Your task to perform on an android device: Open Chrome and go to settings Image 0: 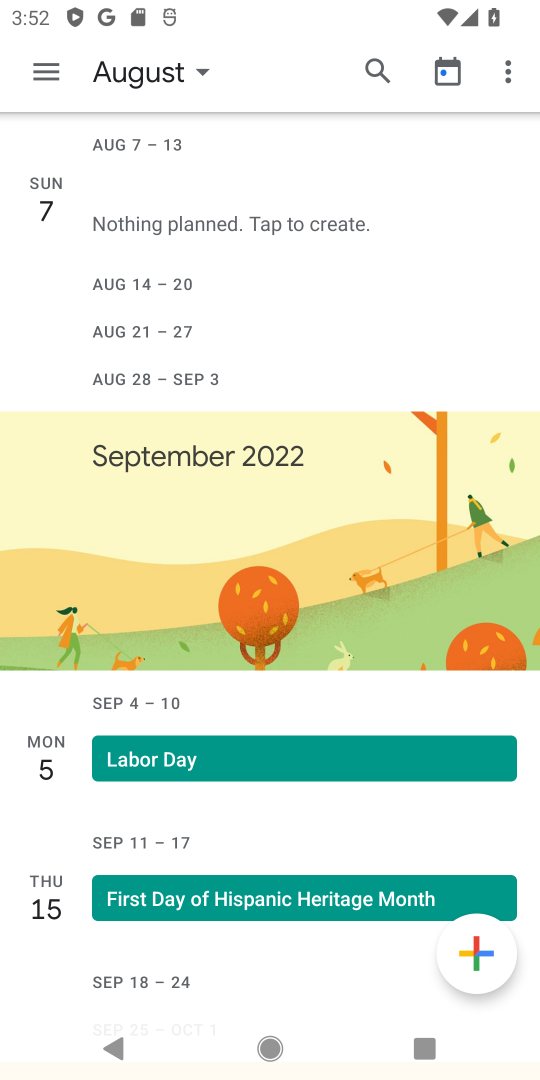
Step 0: press home button
Your task to perform on an android device: Open Chrome and go to settings Image 1: 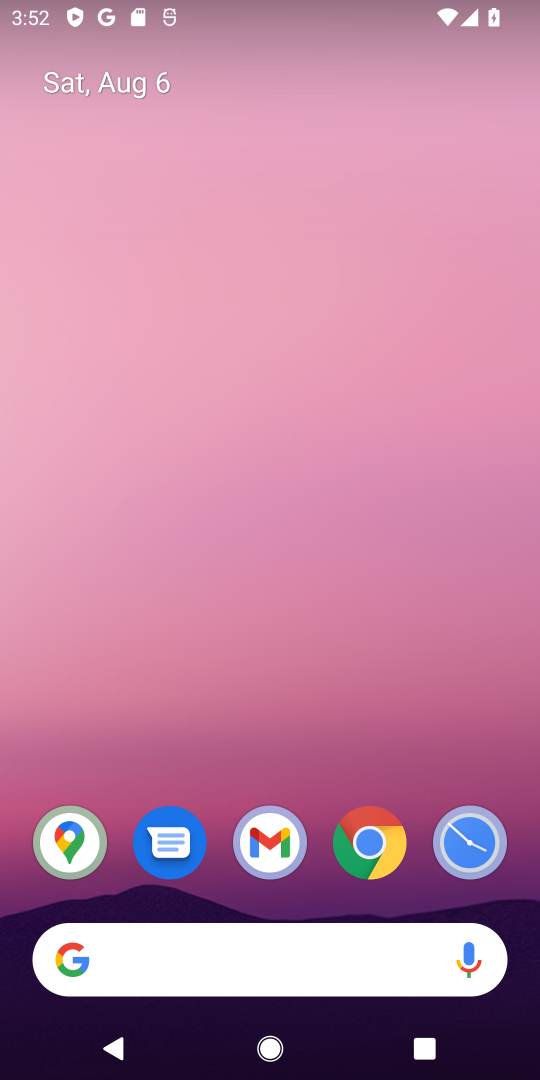
Step 1: click (370, 834)
Your task to perform on an android device: Open Chrome and go to settings Image 2: 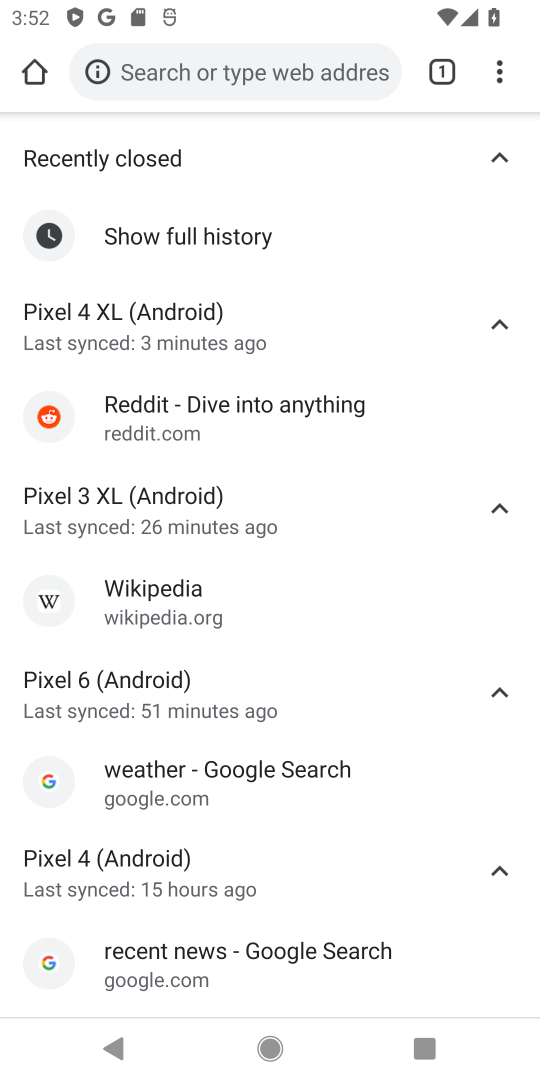
Step 2: press home button
Your task to perform on an android device: Open Chrome and go to settings Image 3: 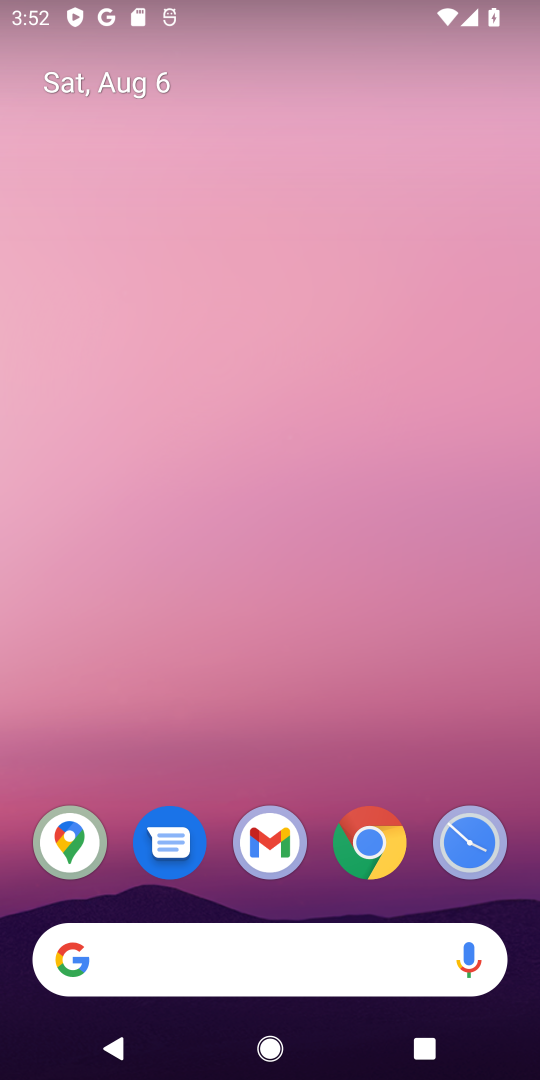
Step 3: click (381, 840)
Your task to perform on an android device: Open Chrome and go to settings Image 4: 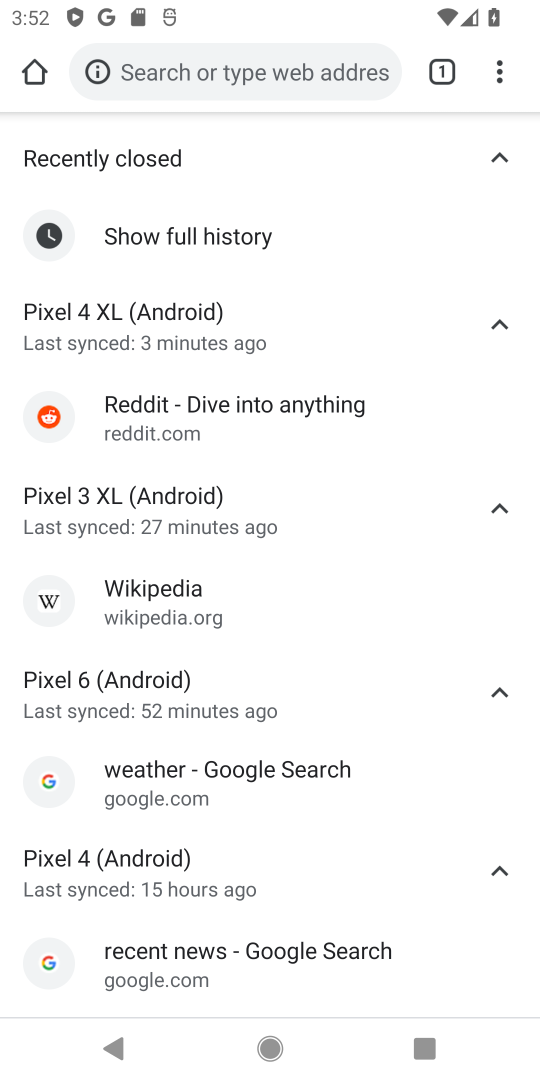
Step 4: click (505, 66)
Your task to perform on an android device: Open Chrome and go to settings Image 5: 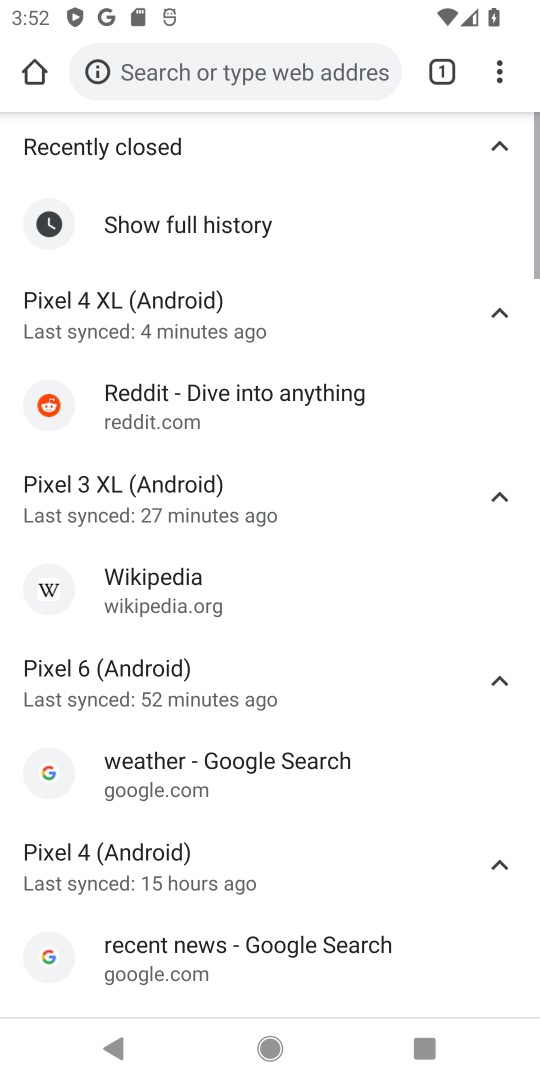
Step 5: click (501, 77)
Your task to perform on an android device: Open Chrome and go to settings Image 6: 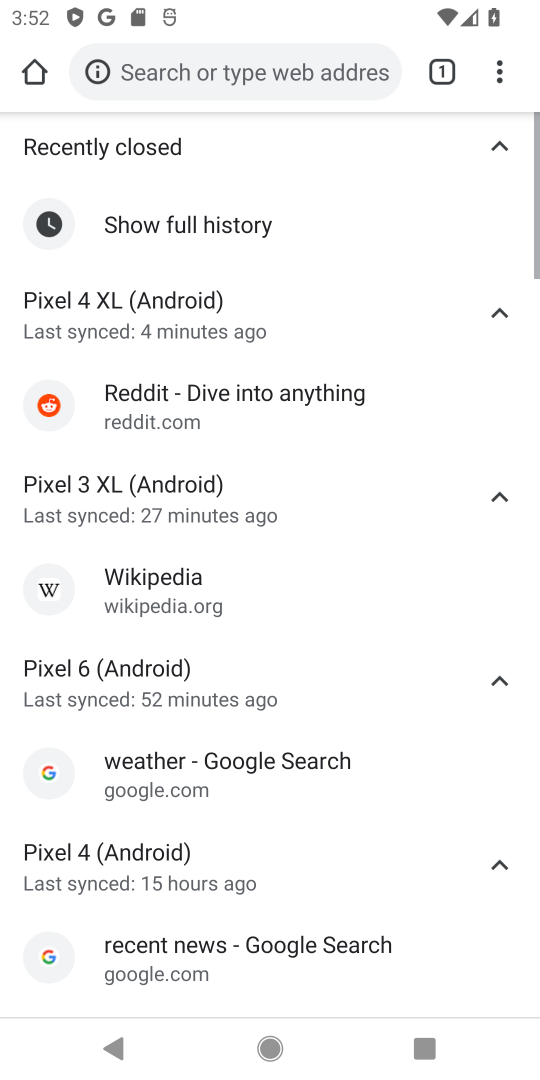
Step 6: click (498, 72)
Your task to perform on an android device: Open Chrome and go to settings Image 7: 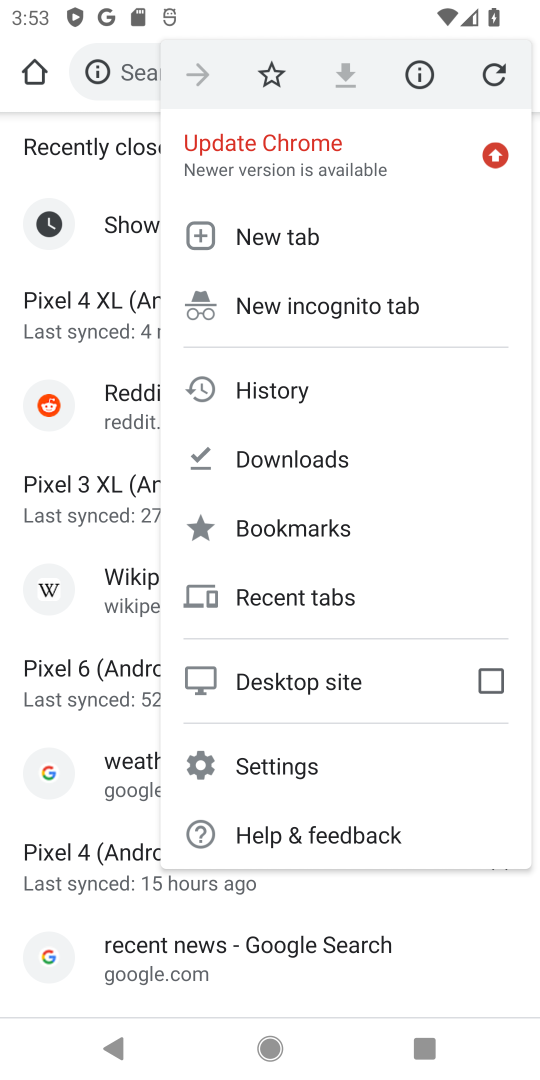
Step 7: click (272, 763)
Your task to perform on an android device: Open Chrome and go to settings Image 8: 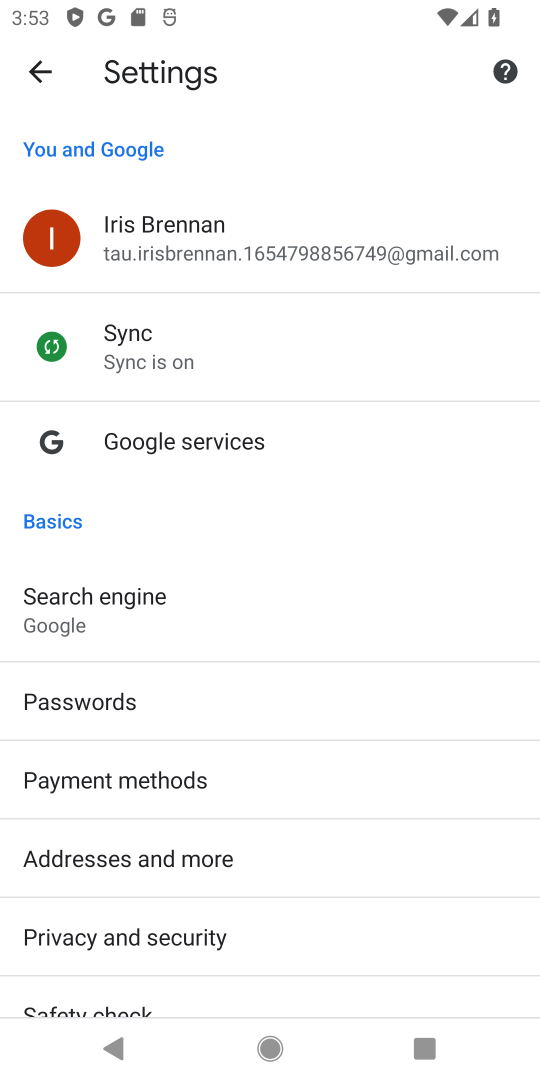
Step 8: task complete